Your task to perform on an android device: Open display settings Image 0: 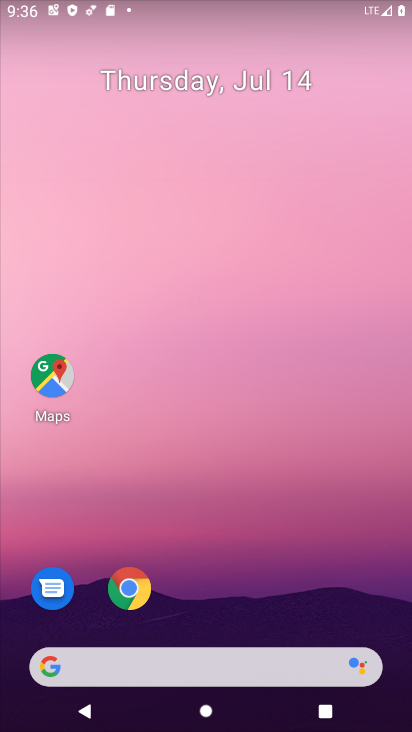
Step 0: drag from (374, 632) to (8, 31)
Your task to perform on an android device: Open display settings Image 1: 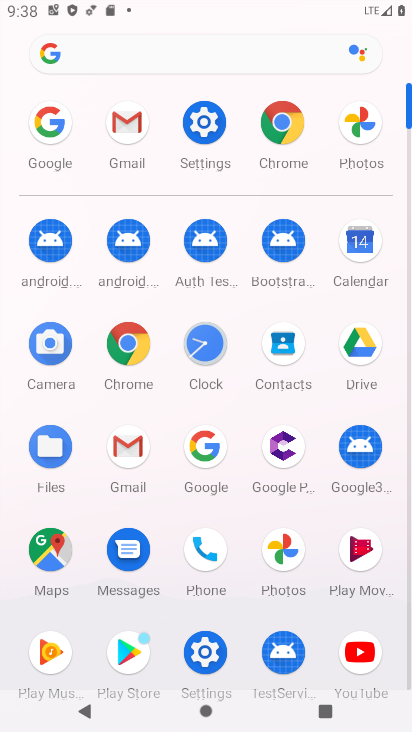
Step 1: click (220, 659)
Your task to perform on an android device: Open display settings Image 2: 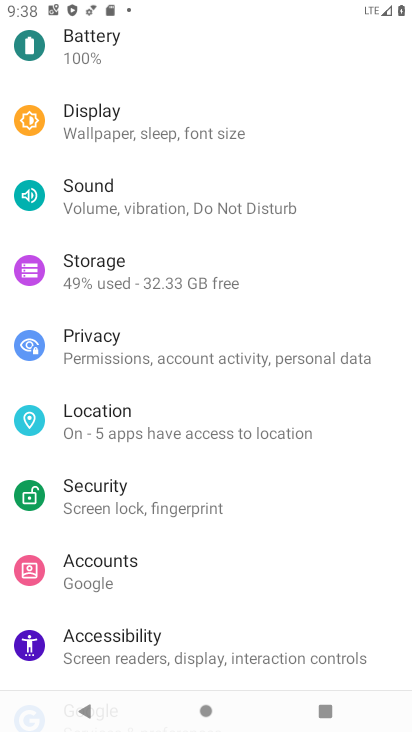
Step 2: click (97, 141)
Your task to perform on an android device: Open display settings Image 3: 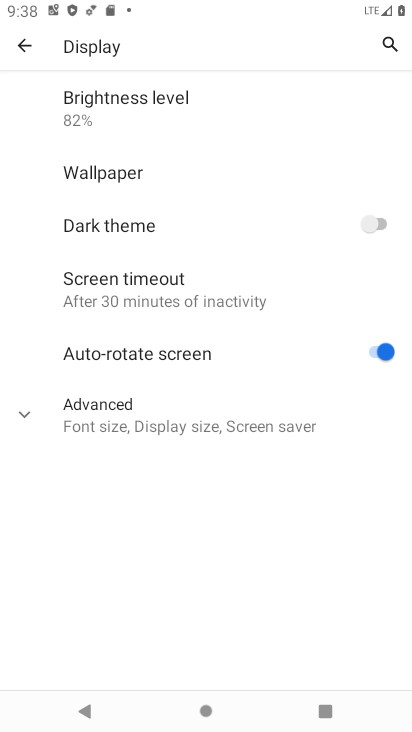
Step 3: task complete